Your task to perform on an android device: turn on improve location accuracy Image 0: 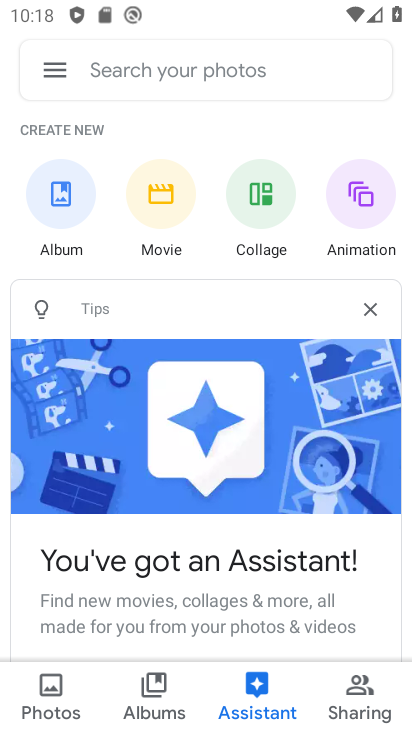
Step 0: drag from (193, 411) to (190, 197)
Your task to perform on an android device: turn on improve location accuracy Image 1: 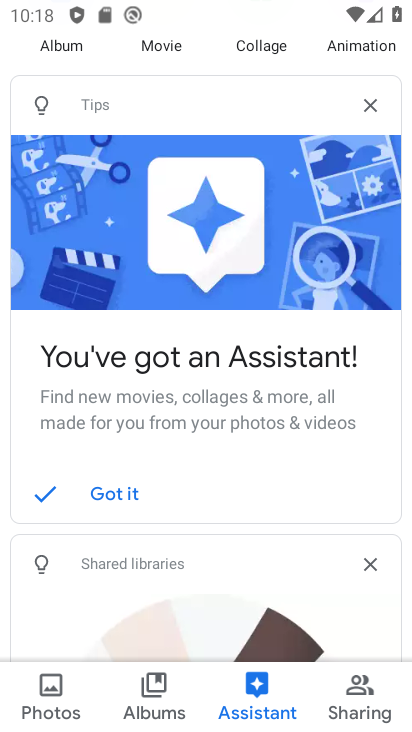
Step 1: drag from (231, 572) to (295, 170)
Your task to perform on an android device: turn on improve location accuracy Image 2: 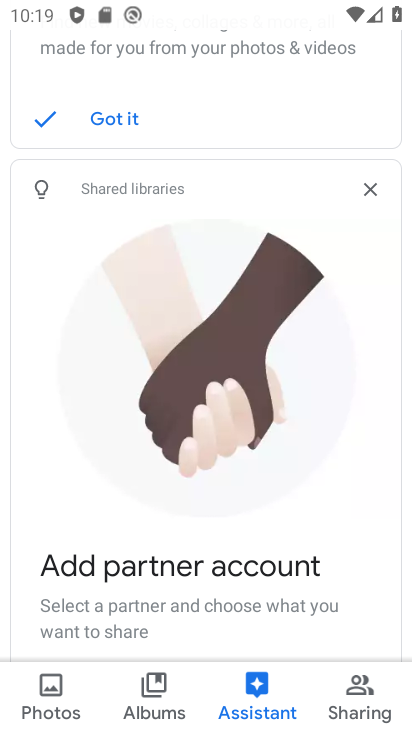
Step 2: drag from (292, 216) to (346, 727)
Your task to perform on an android device: turn on improve location accuracy Image 3: 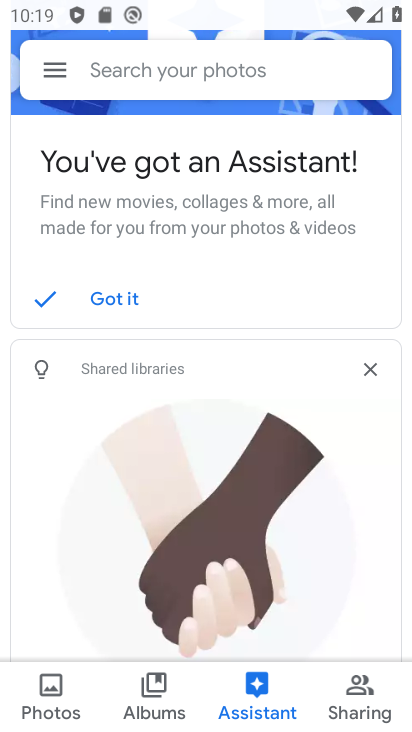
Step 3: press home button
Your task to perform on an android device: turn on improve location accuracy Image 4: 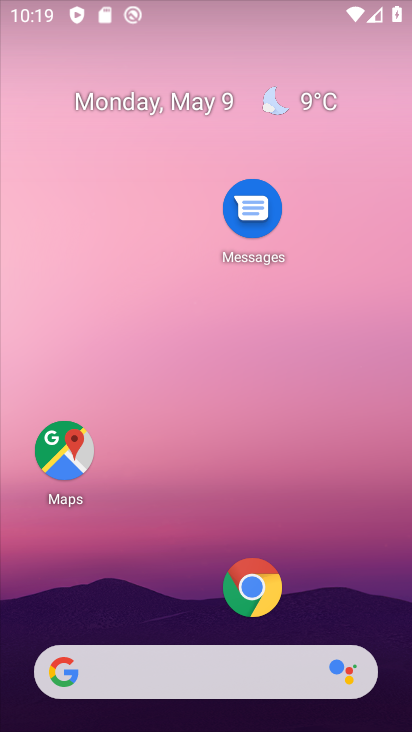
Step 4: drag from (184, 599) to (225, 71)
Your task to perform on an android device: turn on improve location accuracy Image 5: 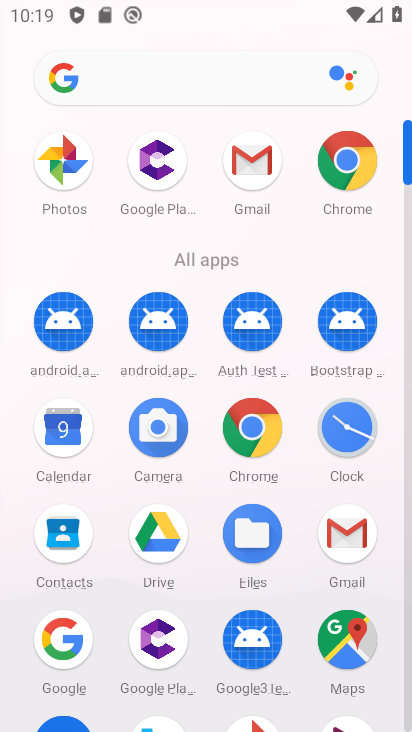
Step 5: drag from (210, 616) to (215, 171)
Your task to perform on an android device: turn on improve location accuracy Image 6: 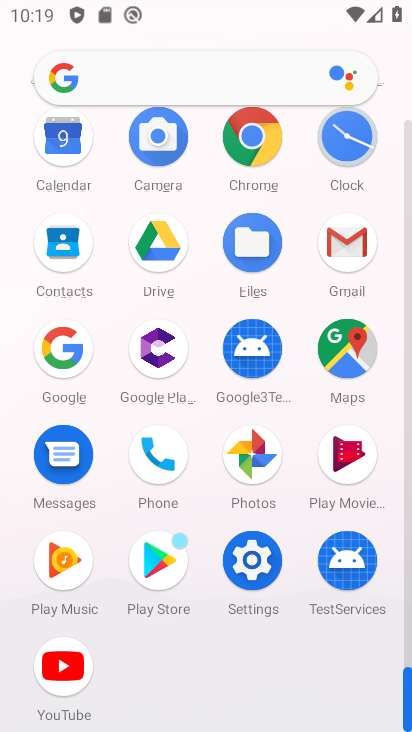
Step 6: click (253, 562)
Your task to perform on an android device: turn on improve location accuracy Image 7: 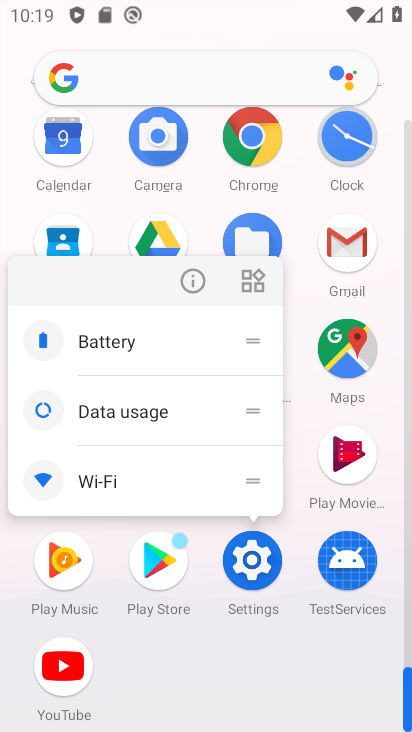
Step 7: click (184, 275)
Your task to perform on an android device: turn on improve location accuracy Image 8: 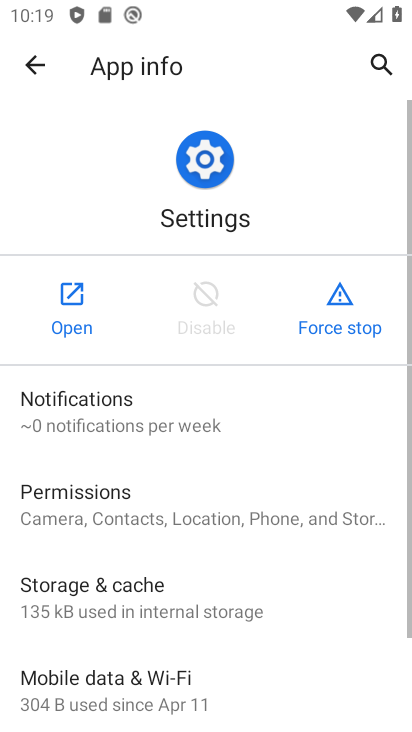
Step 8: click (68, 313)
Your task to perform on an android device: turn on improve location accuracy Image 9: 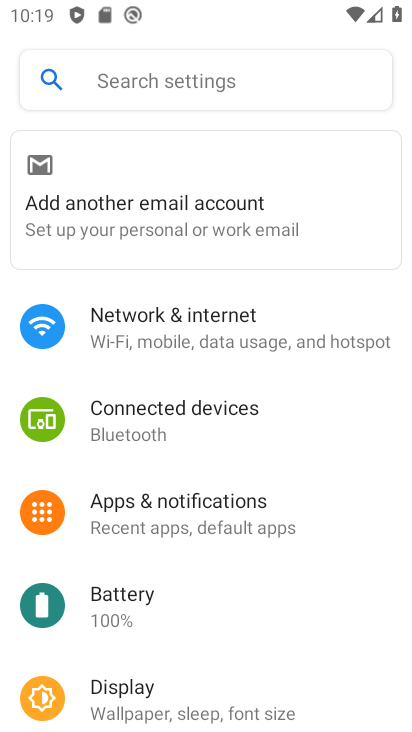
Step 9: drag from (192, 607) to (263, 180)
Your task to perform on an android device: turn on improve location accuracy Image 10: 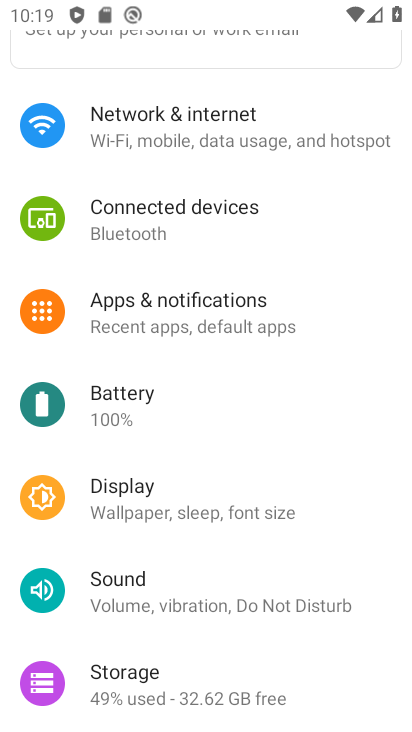
Step 10: drag from (182, 648) to (244, 184)
Your task to perform on an android device: turn on improve location accuracy Image 11: 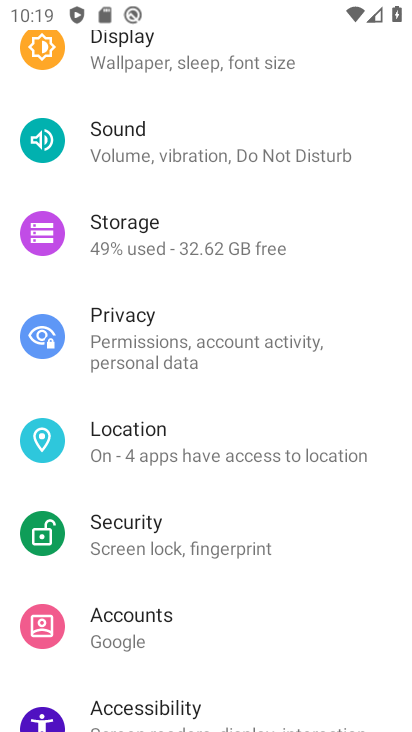
Step 11: click (169, 427)
Your task to perform on an android device: turn on improve location accuracy Image 12: 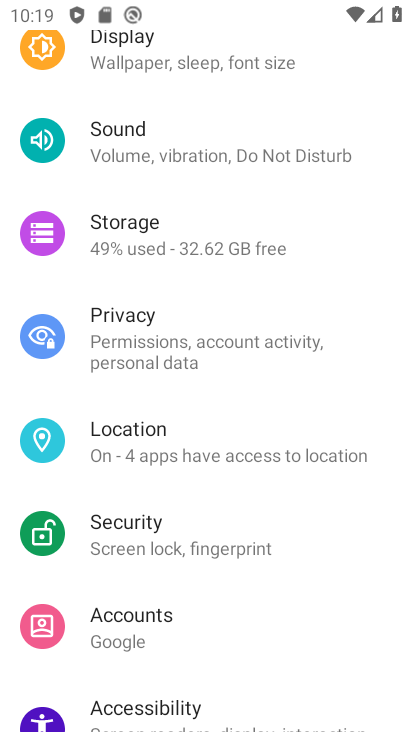
Step 12: click (168, 425)
Your task to perform on an android device: turn on improve location accuracy Image 13: 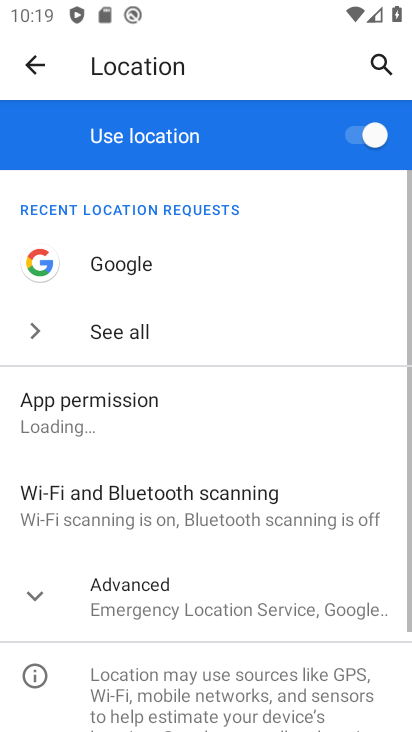
Step 13: drag from (192, 603) to (253, 271)
Your task to perform on an android device: turn on improve location accuracy Image 14: 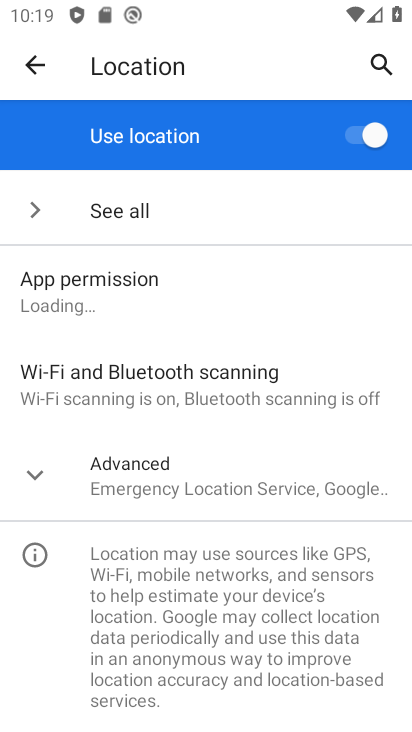
Step 14: click (162, 503)
Your task to perform on an android device: turn on improve location accuracy Image 15: 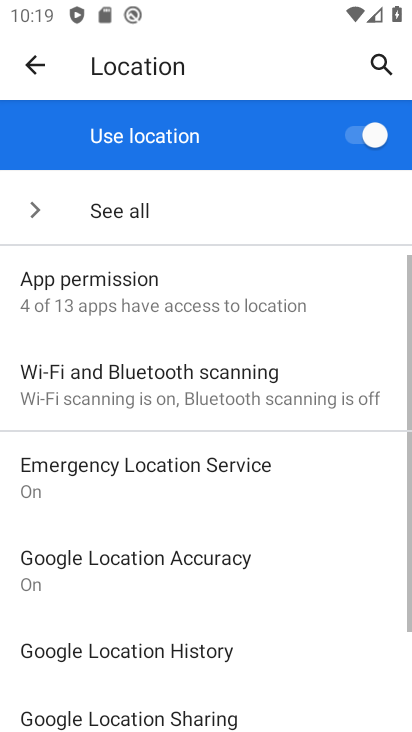
Step 15: drag from (228, 589) to (300, 249)
Your task to perform on an android device: turn on improve location accuracy Image 16: 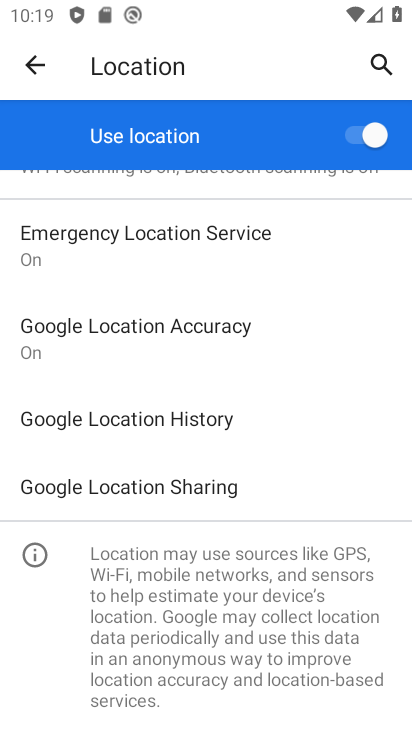
Step 16: click (182, 342)
Your task to perform on an android device: turn on improve location accuracy Image 17: 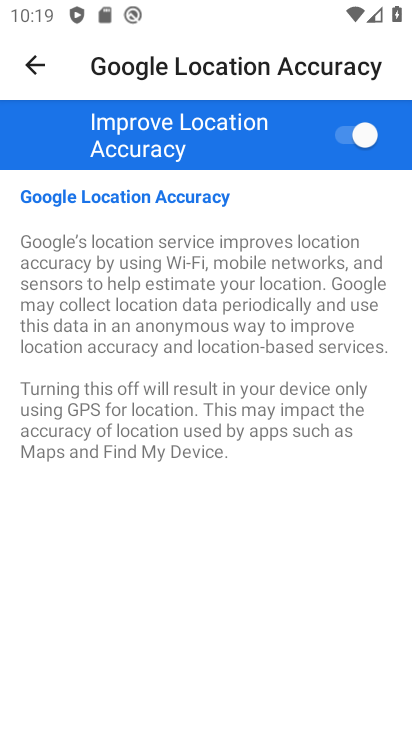
Step 17: drag from (116, 437) to (220, 226)
Your task to perform on an android device: turn on improve location accuracy Image 18: 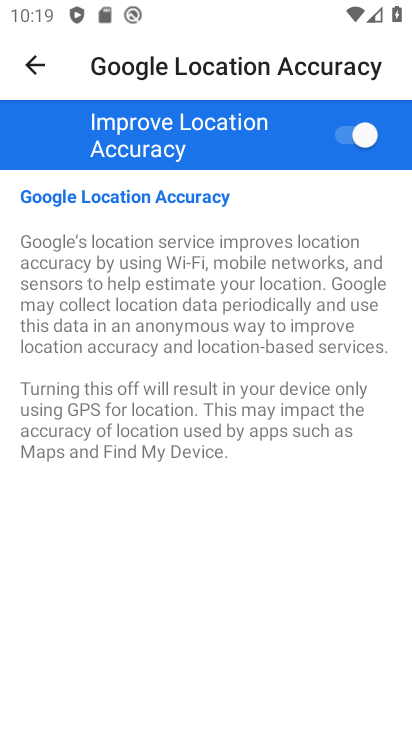
Step 18: drag from (249, 269) to (264, 641)
Your task to perform on an android device: turn on improve location accuracy Image 19: 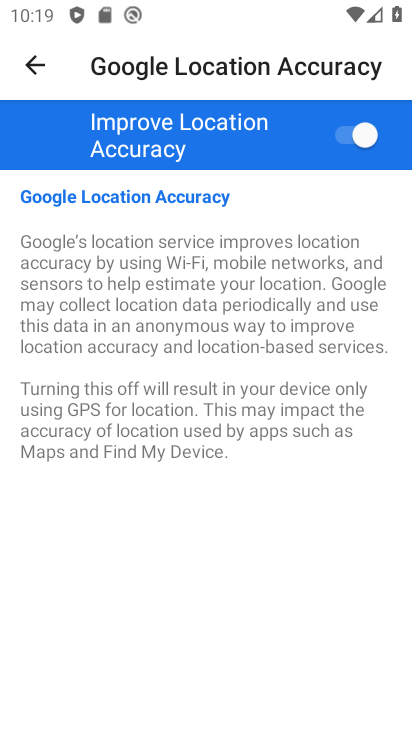
Step 19: click (249, 441)
Your task to perform on an android device: turn on improve location accuracy Image 20: 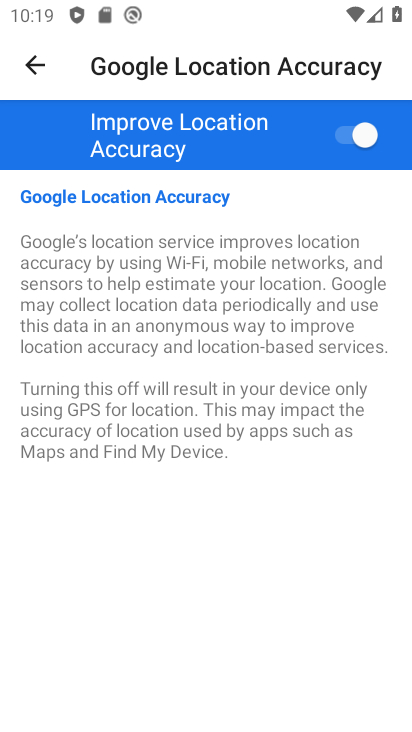
Step 20: click (200, 406)
Your task to perform on an android device: turn on improve location accuracy Image 21: 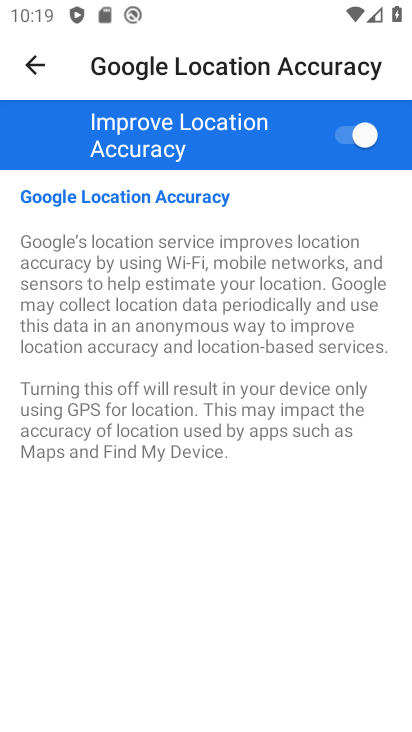
Step 21: click (195, 405)
Your task to perform on an android device: turn on improve location accuracy Image 22: 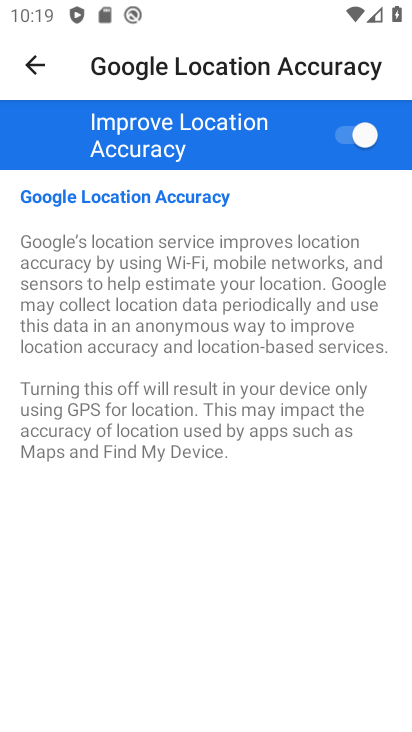
Step 22: click (162, 404)
Your task to perform on an android device: turn on improve location accuracy Image 23: 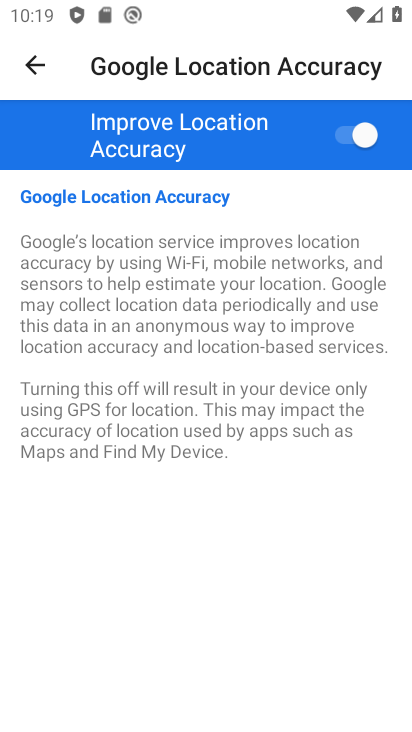
Step 23: click (162, 404)
Your task to perform on an android device: turn on improve location accuracy Image 24: 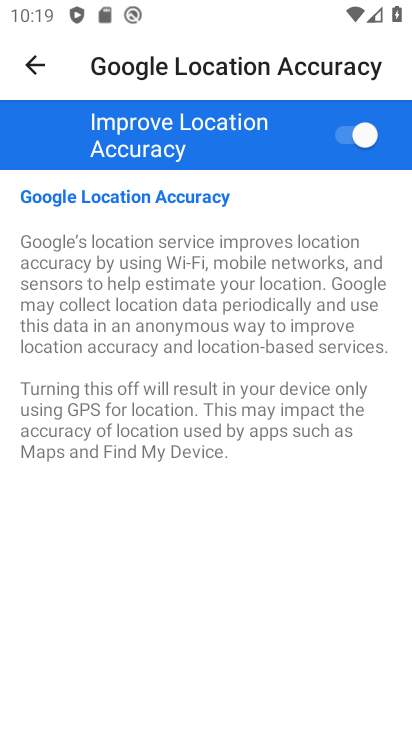
Step 24: click (162, 404)
Your task to perform on an android device: turn on improve location accuracy Image 25: 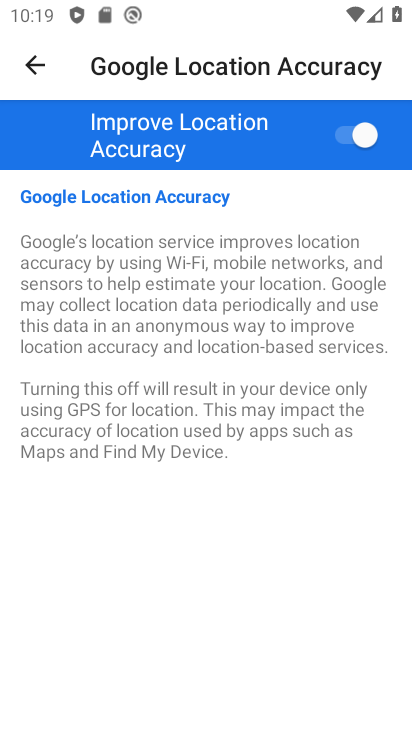
Step 25: task complete